Your task to perform on an android device: choose inbox layout in the gmail app Image 0: 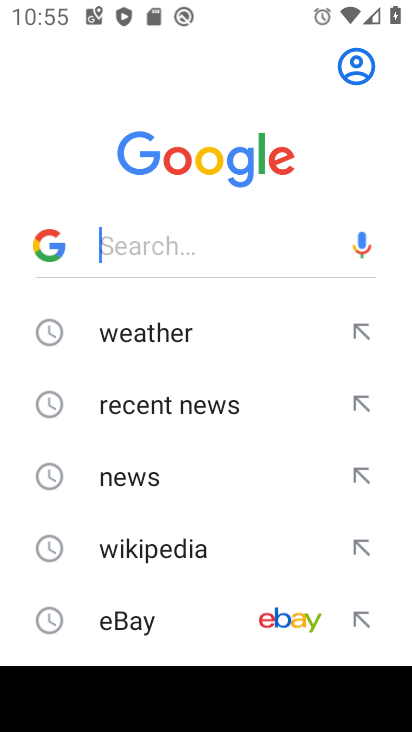
Step 0: press home button
Your task to perform on an android device: choose inbox layout in the gmail app Image 1: 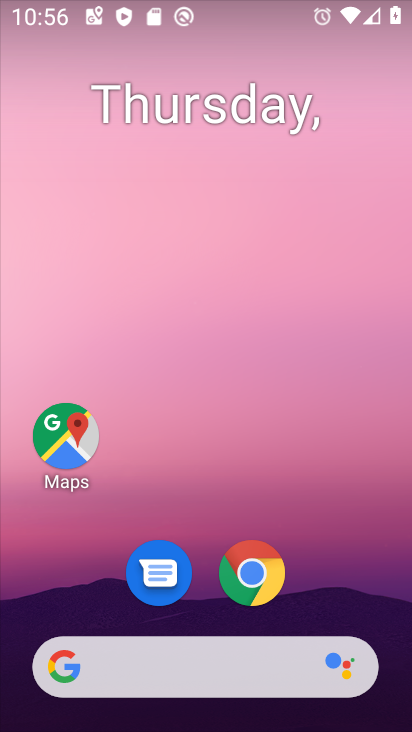
Step 1: drag from (336, 547) to (221, 146)
Your task to perform on an android device: choose inbox layout in the gmail app Image 2: 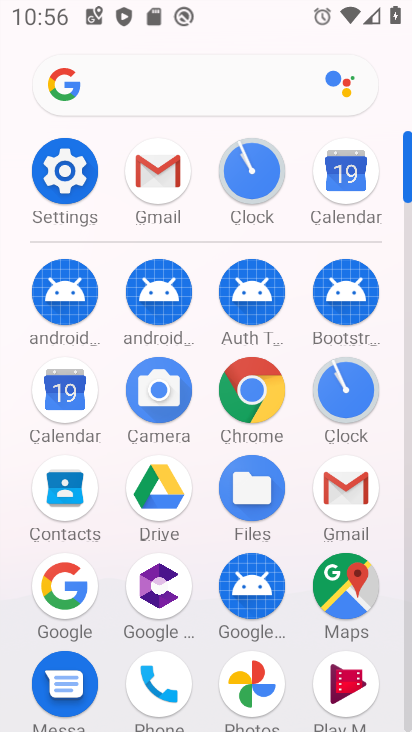
Step 2: click (165, 162)
Your task to perform on an android device: choose inbox layout in the gmail app Image 3: 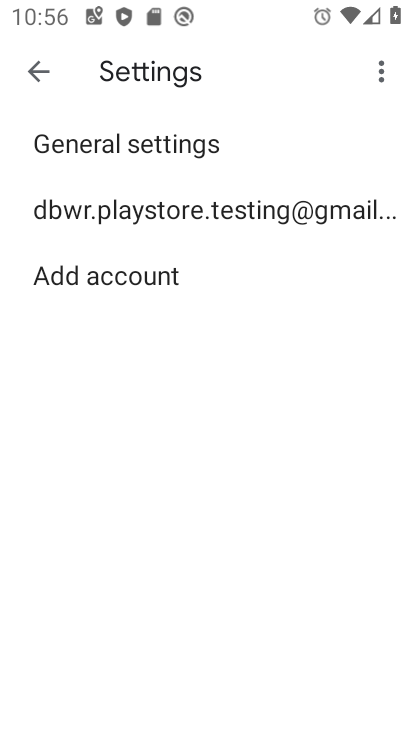
Step 3: click (163, 192)
Your task to perform on an android device: choose inbox layout in the gmail app Image 4: 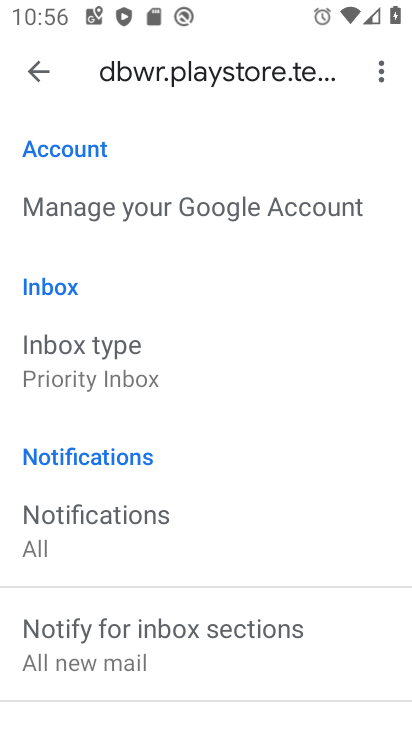
Step 4: click (134, 373)
Your task to perform on an android device: choose inbox layout in the gmail app Image 5: 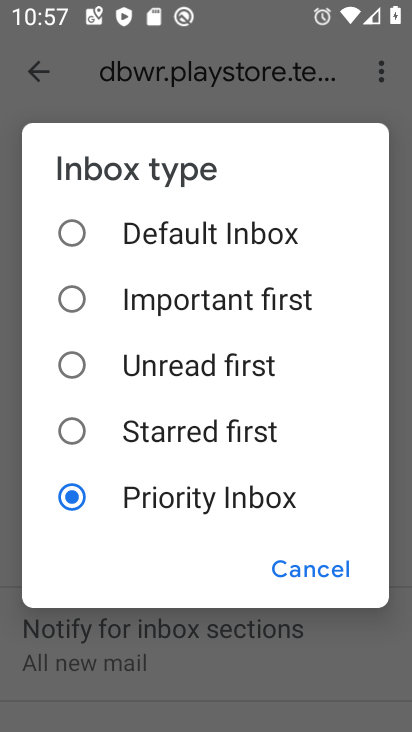
Step 5: task complete